Your task to perform on an android device: add a contact Image 0: 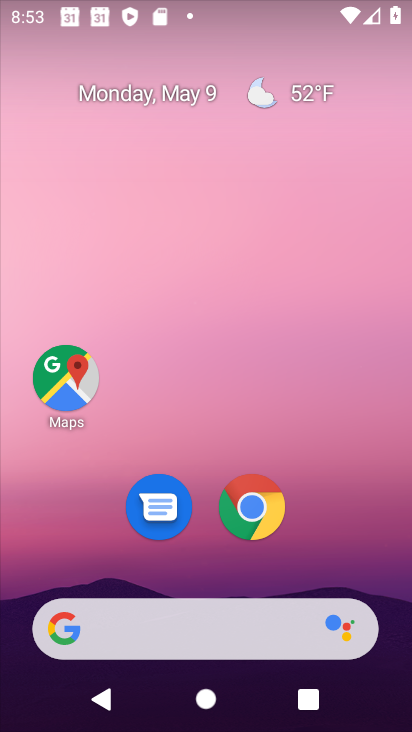
Step 0: drag from (343, 544) to (226, 114)
Your task to perform on an android device: add a contact Image 1: 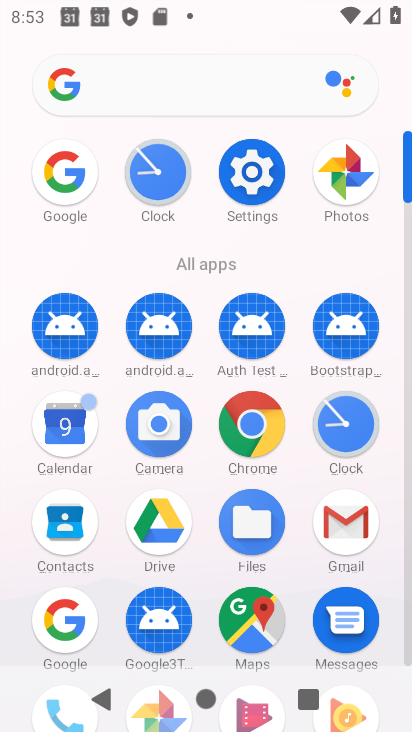
Step 1: click (67, 523)
Your task to perform on an android device: add a contact Image 2: 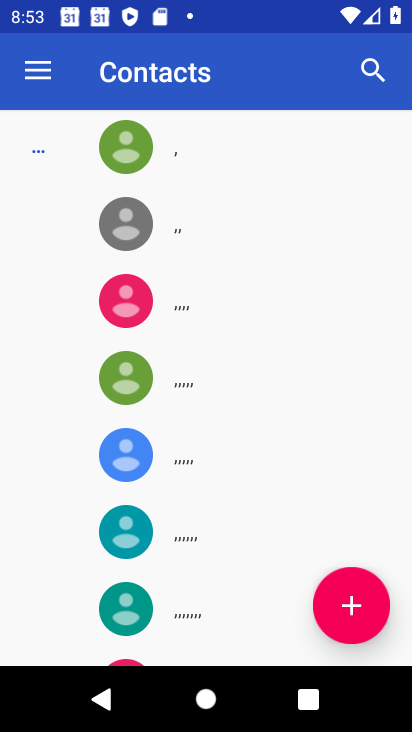
Step 2: click (350, 605)
Your task to perform on an android device: add a contact Image 3: 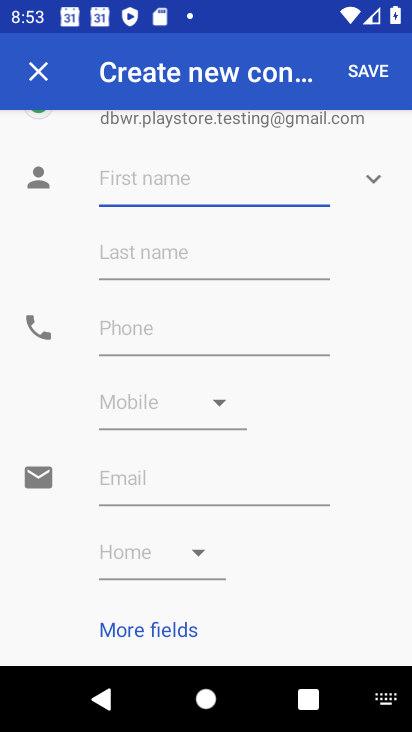
Step 3: click (144, 185)
Your task to perform on an android device: add a contact Image 4: 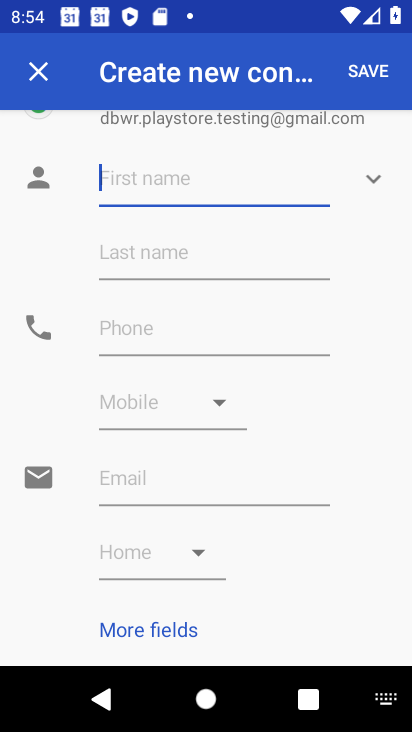
Step 4: type "Shivnarayan"
Your task to perform on an android device: add a contact Image 5: 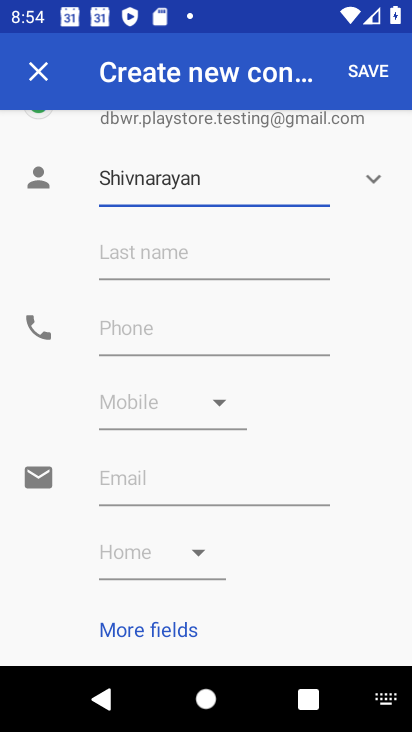
Step 5: click (269, 245)
Your task to perform on an android device: add a contact Image 6: 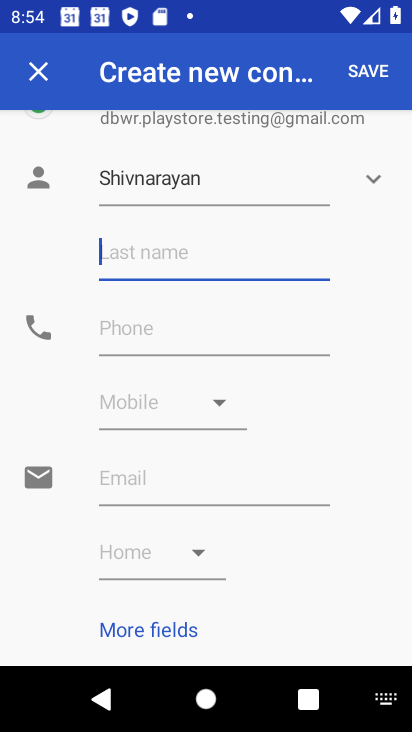
Step 6: type "Chandrapaul"
Your task to perform on an android device: add a contact Image 7: 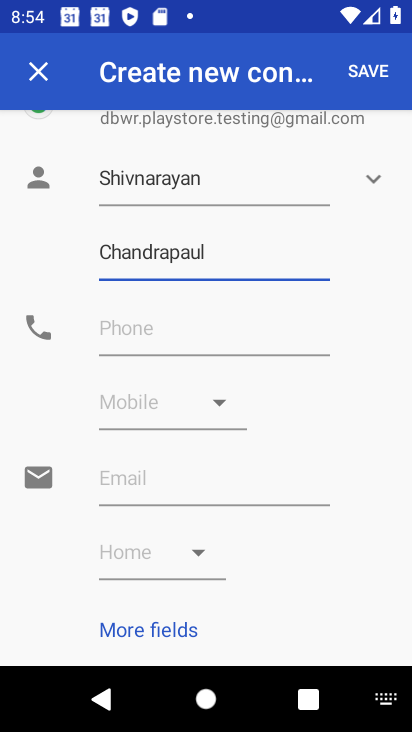
Step 7: click (186, 337)
Your task to perform on an android device: add a contact Image 8: 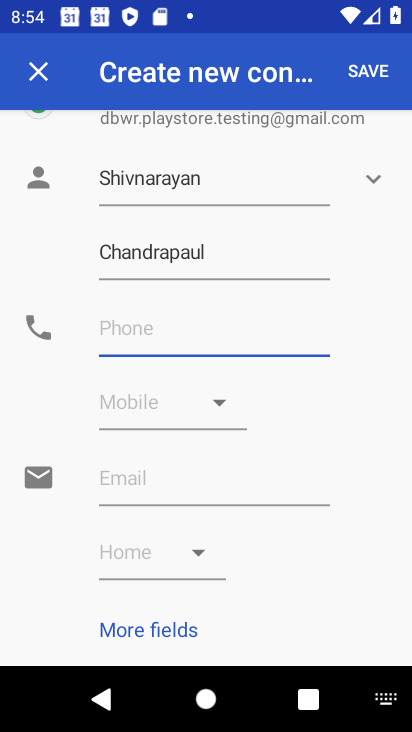
Step 8: type "0987678543456"
Your task to perform on an android device: add a contact Image 9: 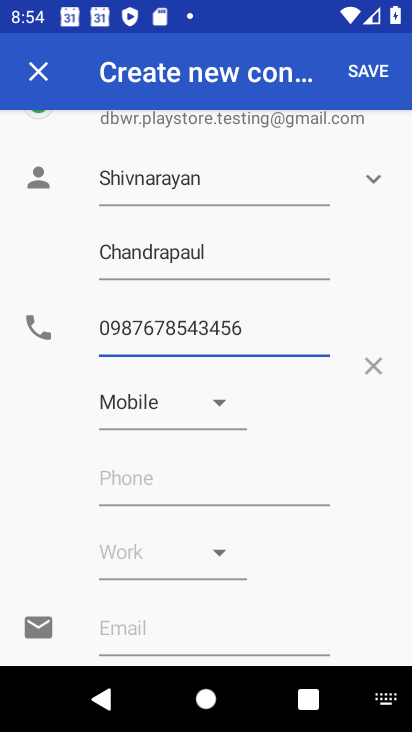
Step 9: click (379, 73)
Your task to perform on an android device: add a contact Image 10: 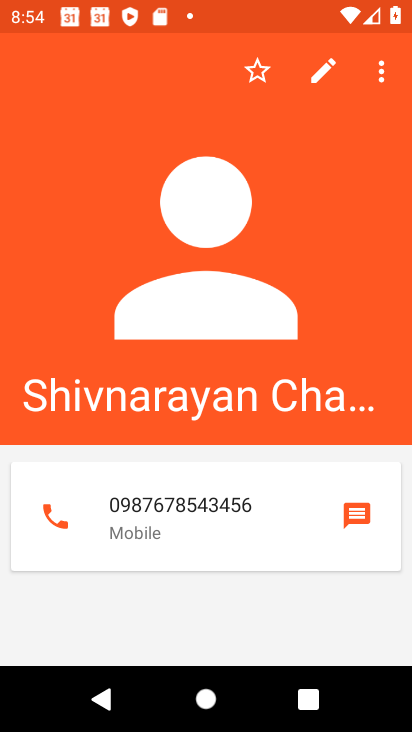
Step 10: task complete